Your task to perform on an android device: toggle show notifications on the lock screen Image 0: 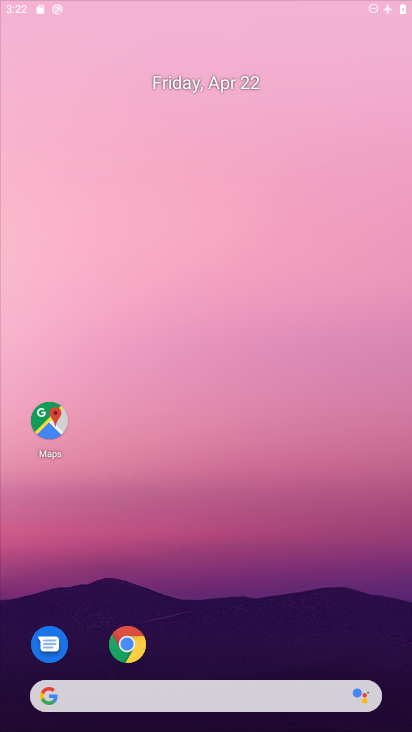
Step 0: click (289, 131)
Your task to perform on an android device: toggle show notifications on the lock screen Image 1: 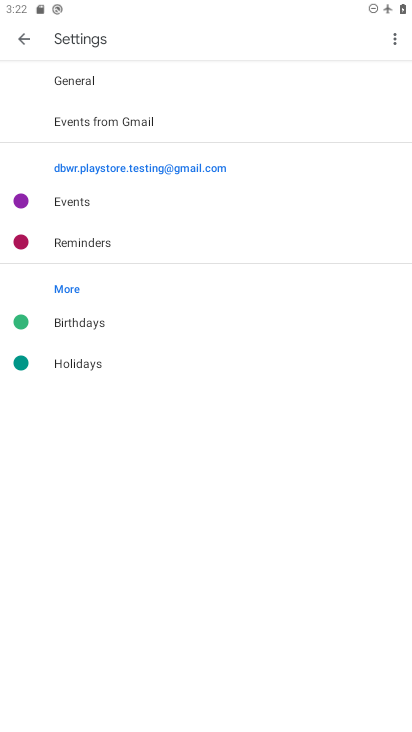
Step 1: press home button
Your task to perform on an android device: toggle show notifications on the lock screen Image 2: 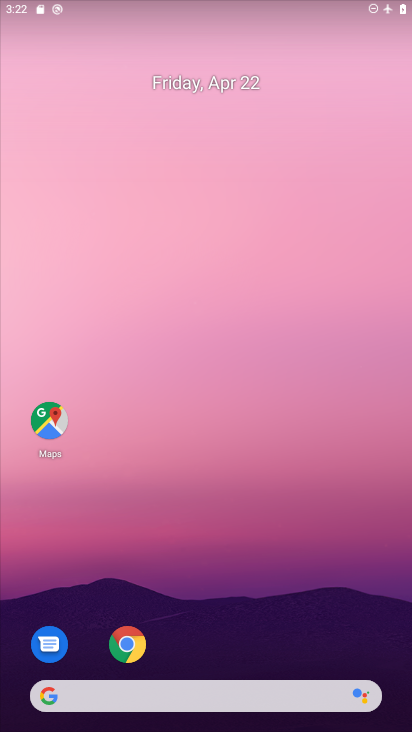
Step 2: drag from (270, 611) to (280, 191)
Your task to perform on an android device: toggle show notifications on the lock screen Image 3: 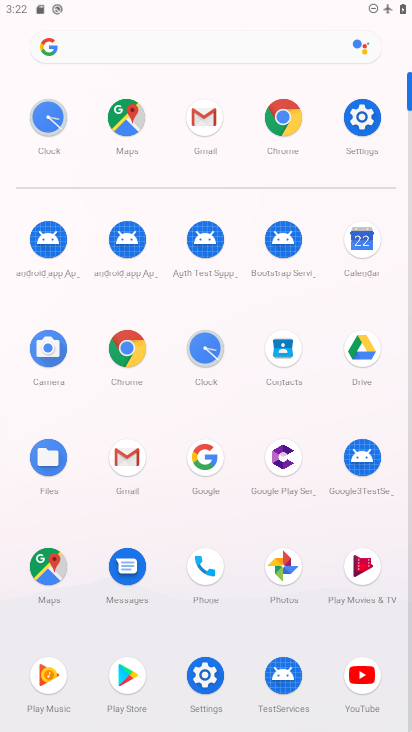
Step 3: click (362, 128)
Your task to perform on an android device: toggle show notifications on the lock screen Image 4: 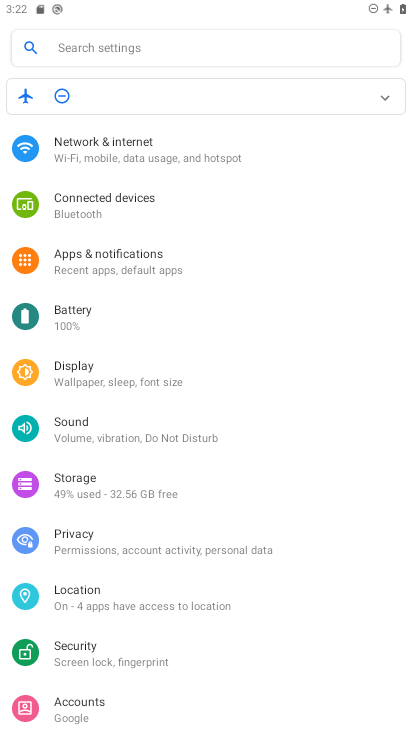
Step 4: click (107, 262)
Your task to perform on an android device: toggle show notifications on the lock screen Image 5: 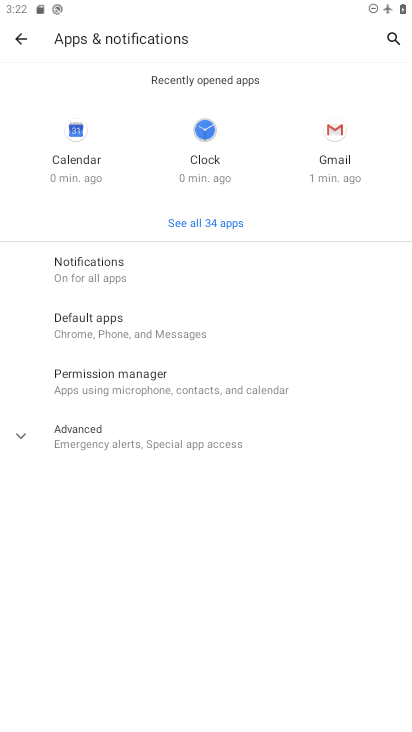
Step 5: click (101, 267)
Your task to perform on an android device: toggle show notifications on the lock screen Image 6: 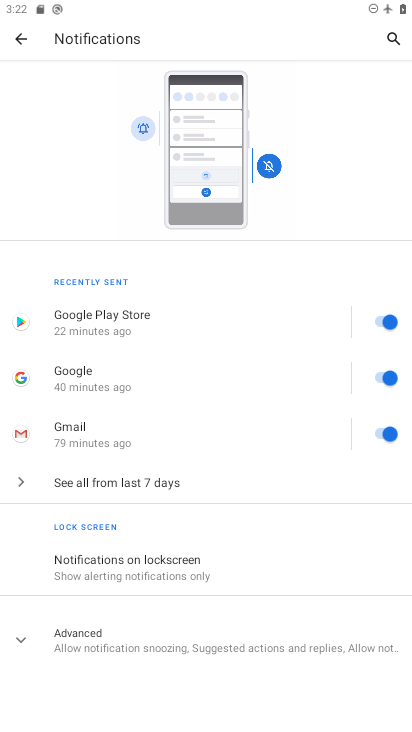
Step 6: click (153, 561)
Your task to perform on an android device: toggle show notifications on the lock screen Image 7: 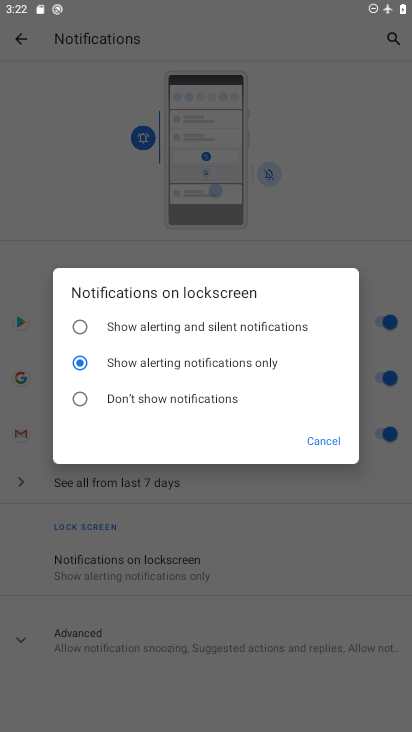
Step 7: click (165, 334)
Your task to perform on an android device: toggle show notifications on the lock screen Image 8: 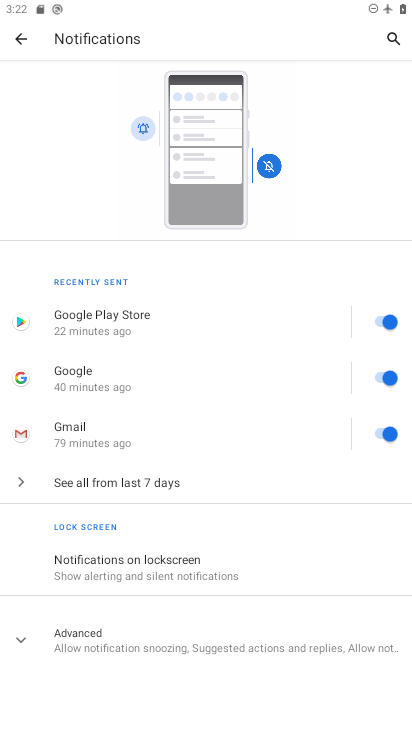
Step 8: task complete